Your task to perform on an android device: Do I have any events today? Image 0: 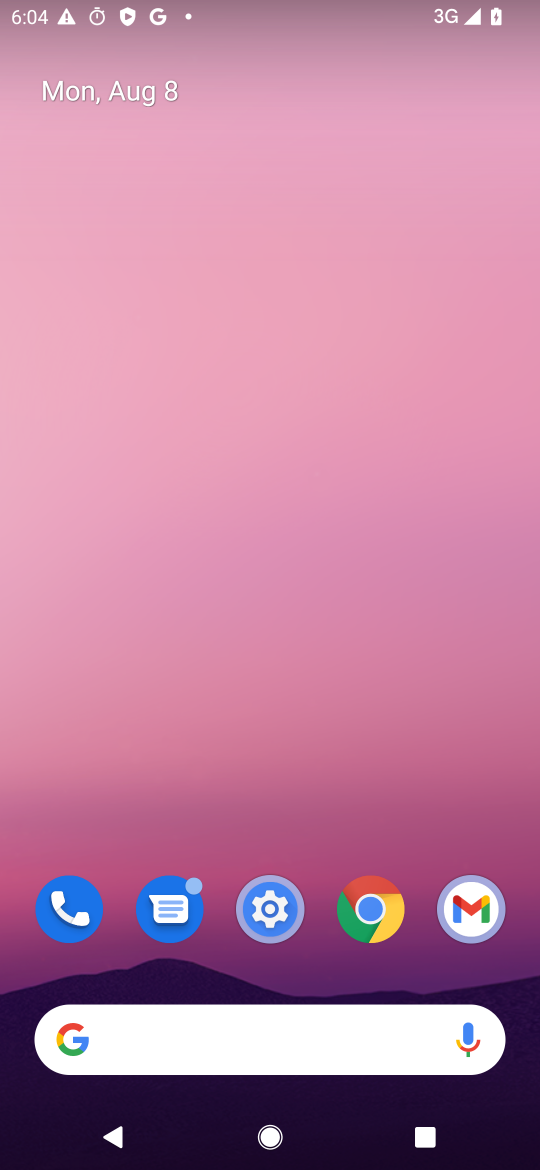
Step 0: click (188, 1049)
Your task to perform on an android device: Do I have any events today? Image 1: 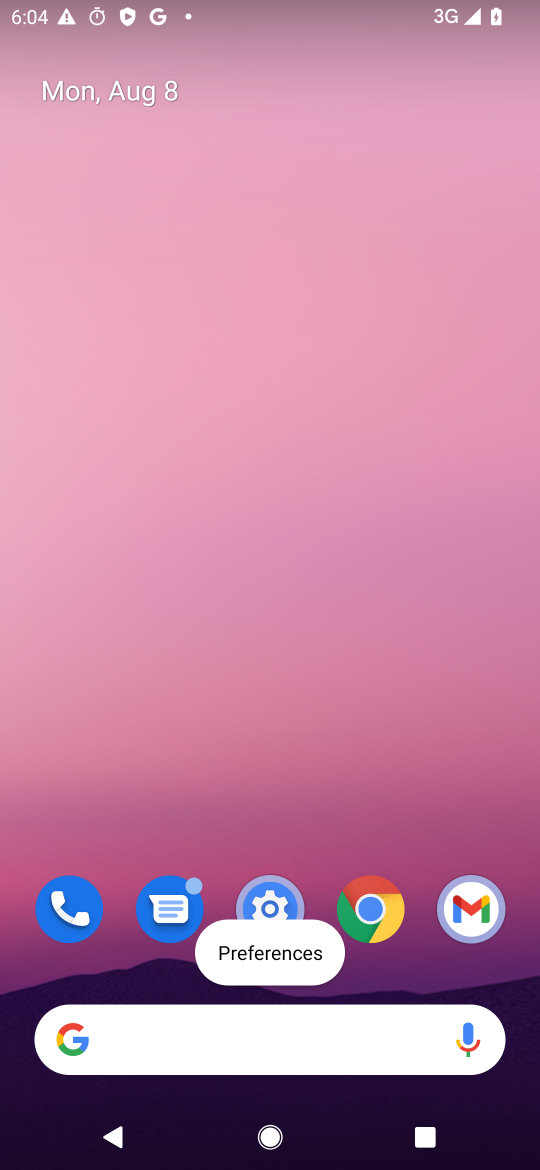
Step 1: click (166, 1027)
Your task to perform on an android device: Do I have any events today? Image 2: 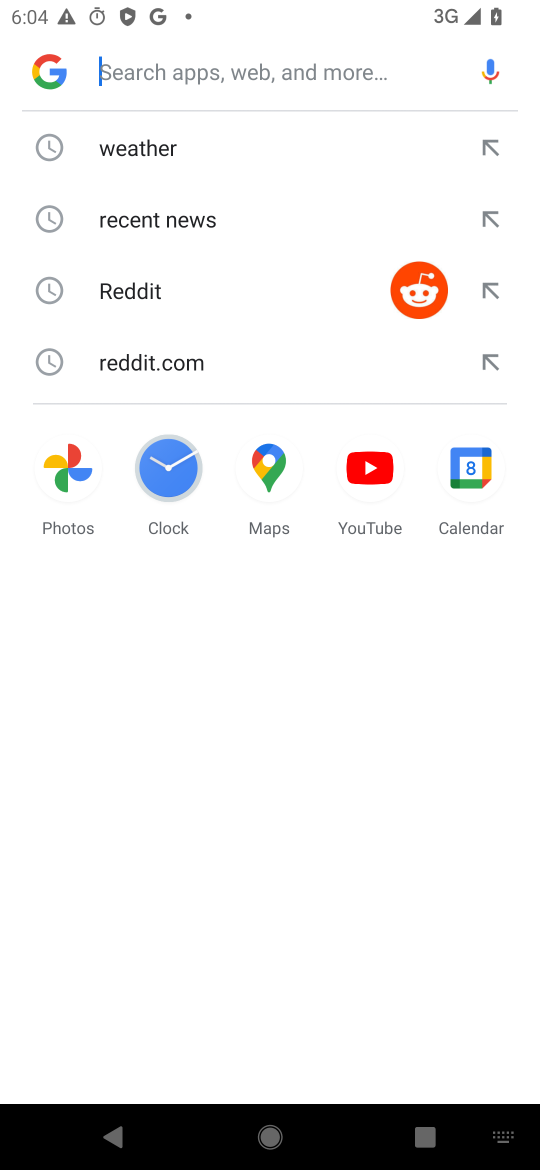
Step 2: press home button
Your task to perform on an android device: Do I have any events today? Image 3: 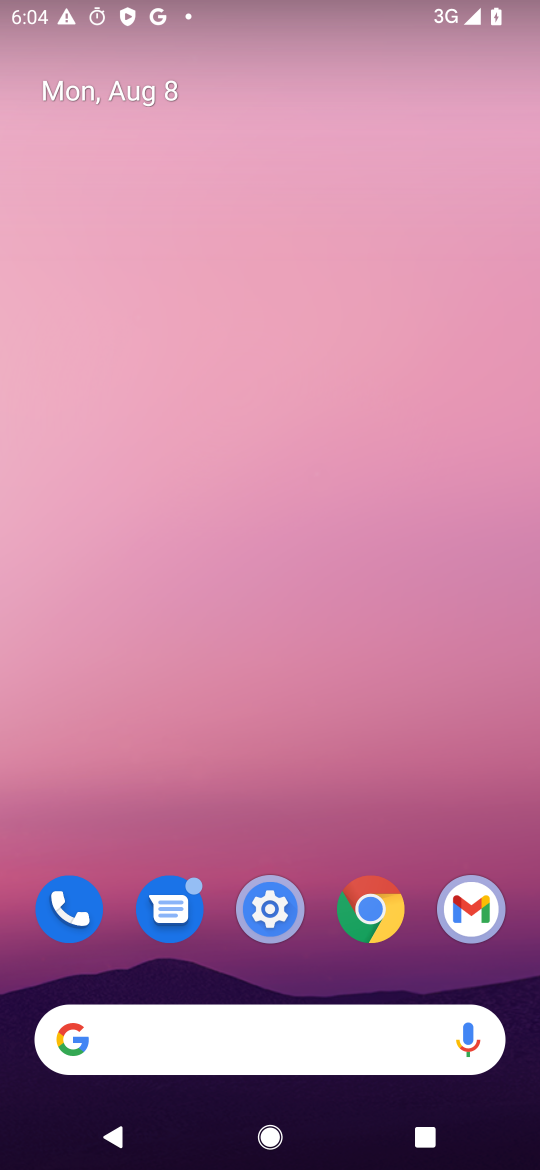
Step 3: drag from (334, 532) to (413, 94)
Your task to perform on an android device: Do I have any events today? Image 4: 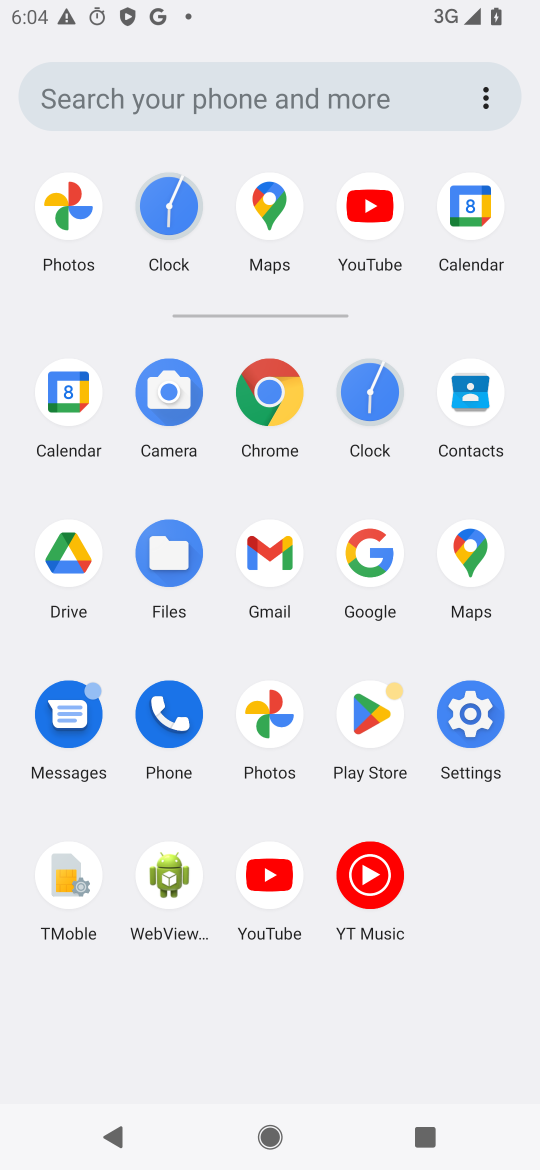
Step 4: click (79, 385)
Your task to perform on an android device: Do I have any events today? Image 5: 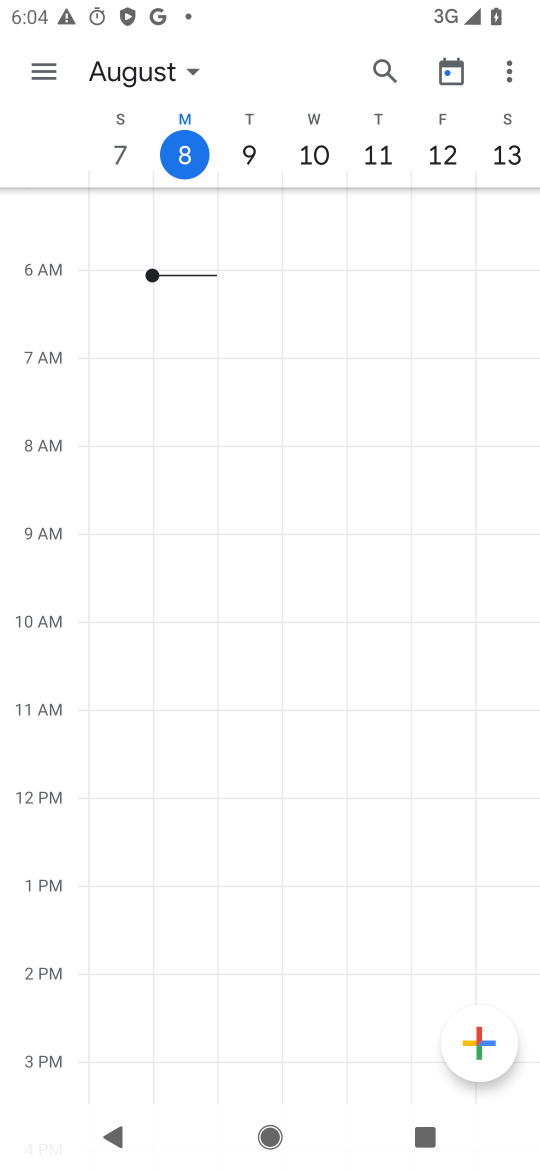
Step 5: click (159, 65)
Your task to perform on an android device: Do I have any events today? Image 6: 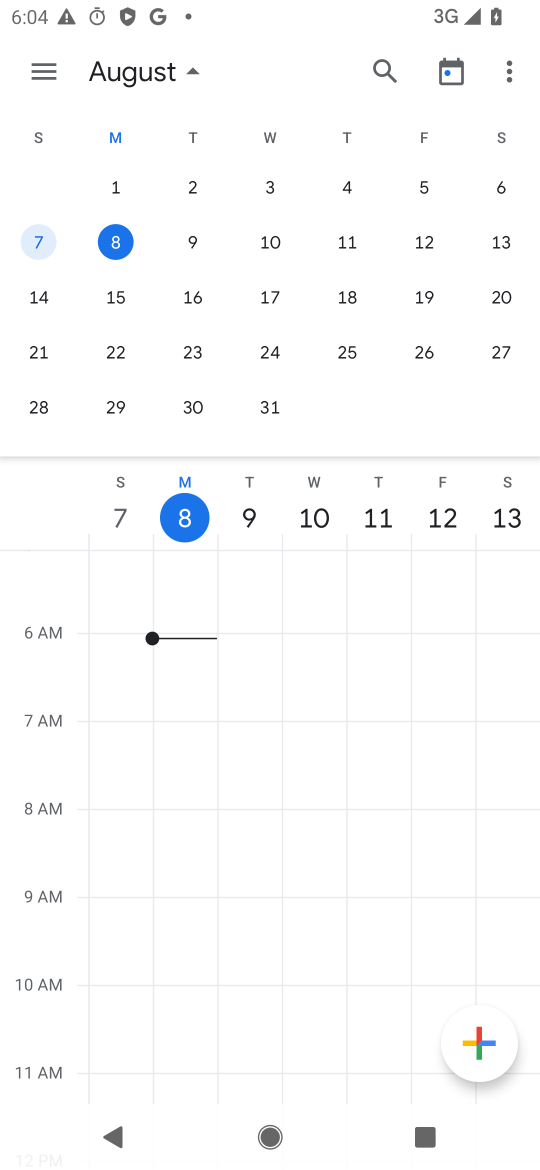
Step 6: click (32, 230)
Your task to perform on an android device: Do I have any events today? Image 7: 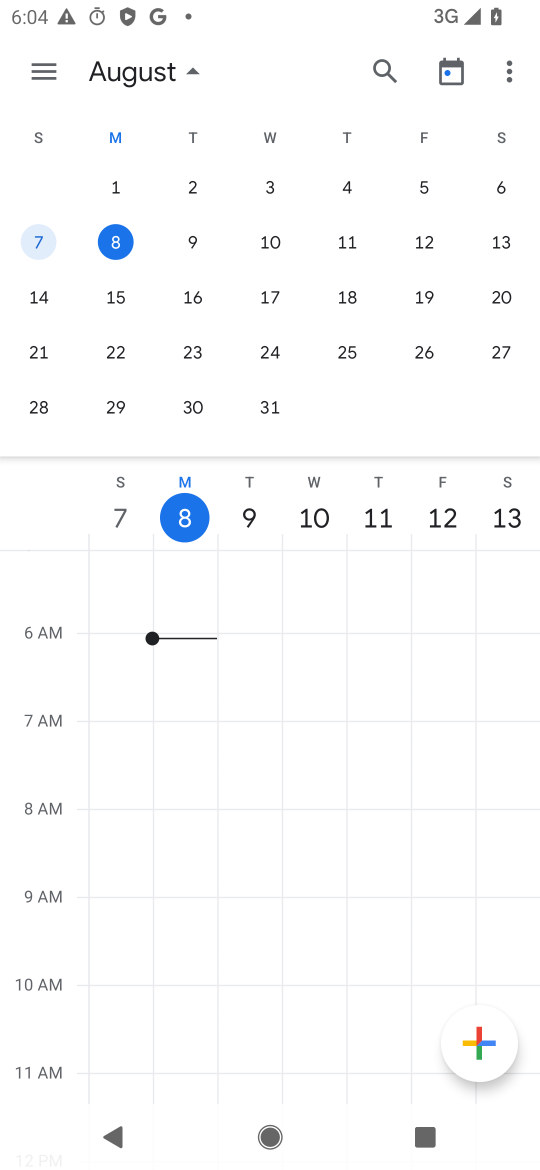
Step 7: click (43, 247)
Your task to perform on an android device: Do I have any events today? Image 8: 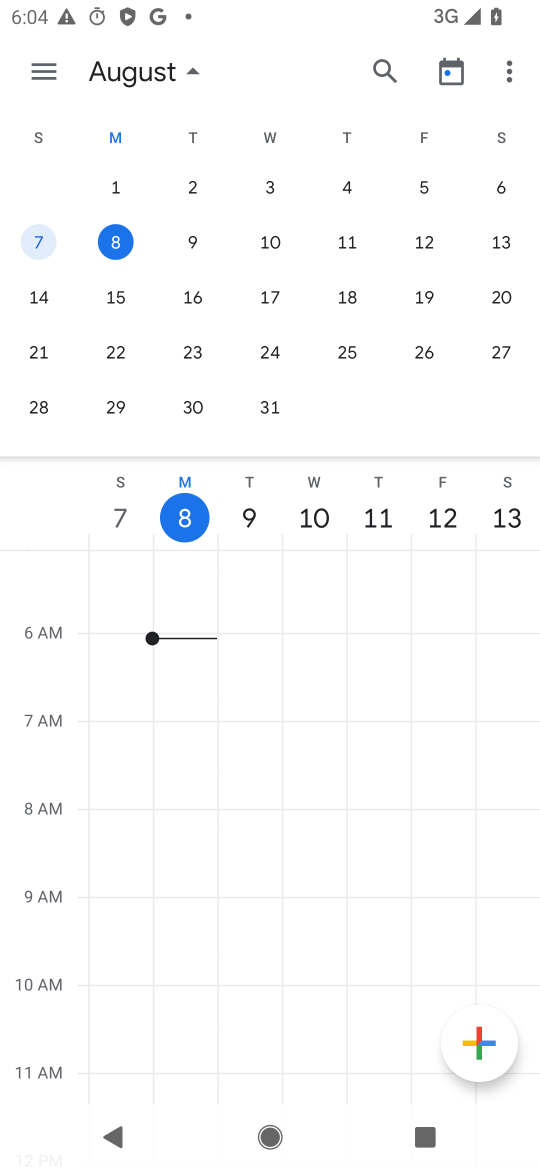
Step 8: click (49, 244)
Your task to perform on an android device: Do I have any events today? Image 9: 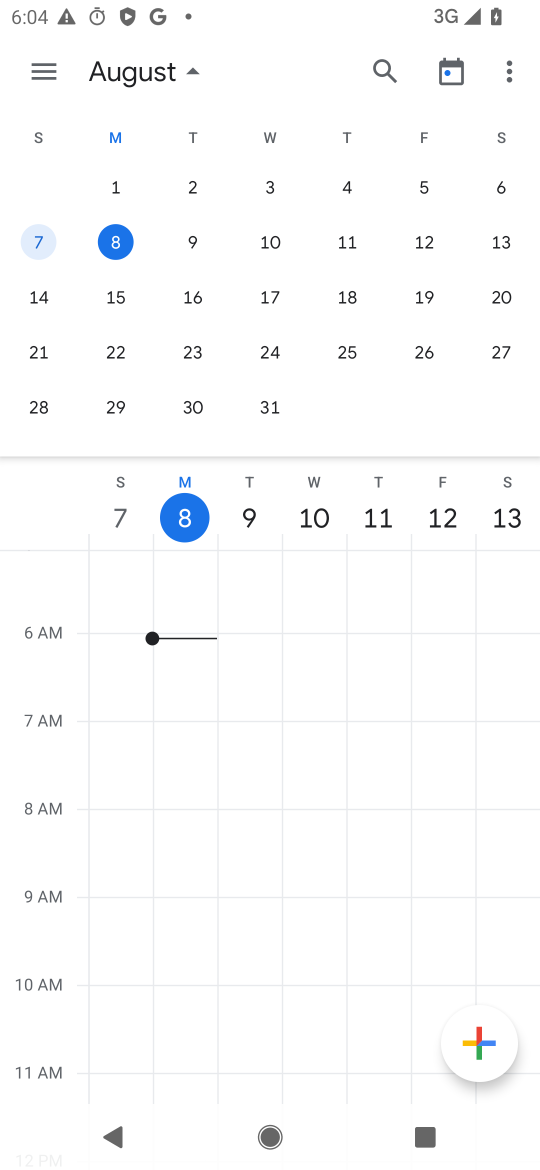
Step 9: click (55, 234)
Your task to perform on an android device: Do I have any events today? Image 10: 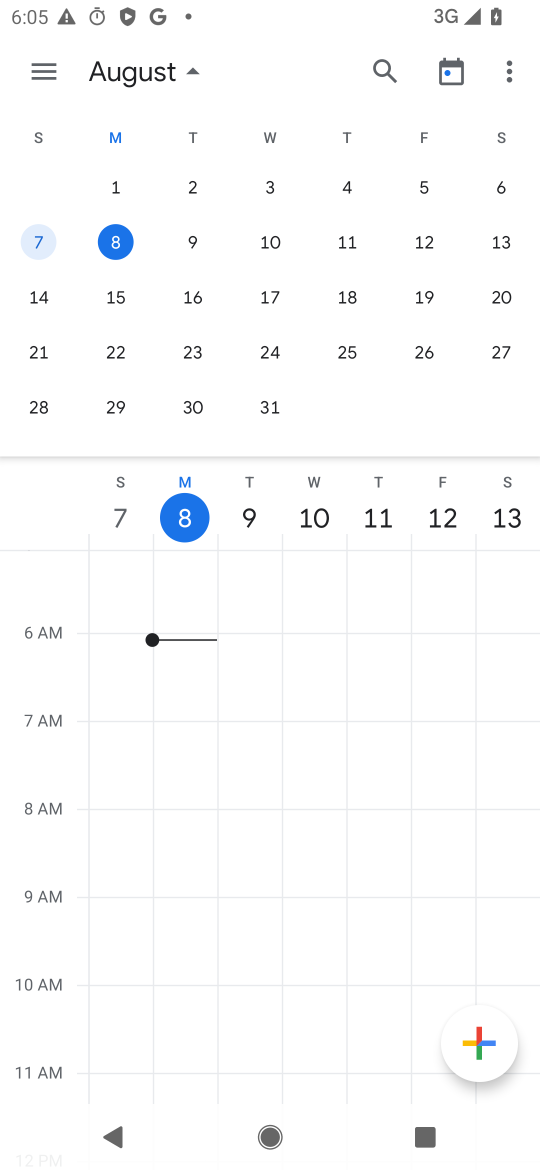
Step 10: click (66, 234)
Your task to perform on an android device: Do I have any events today? Image 11: 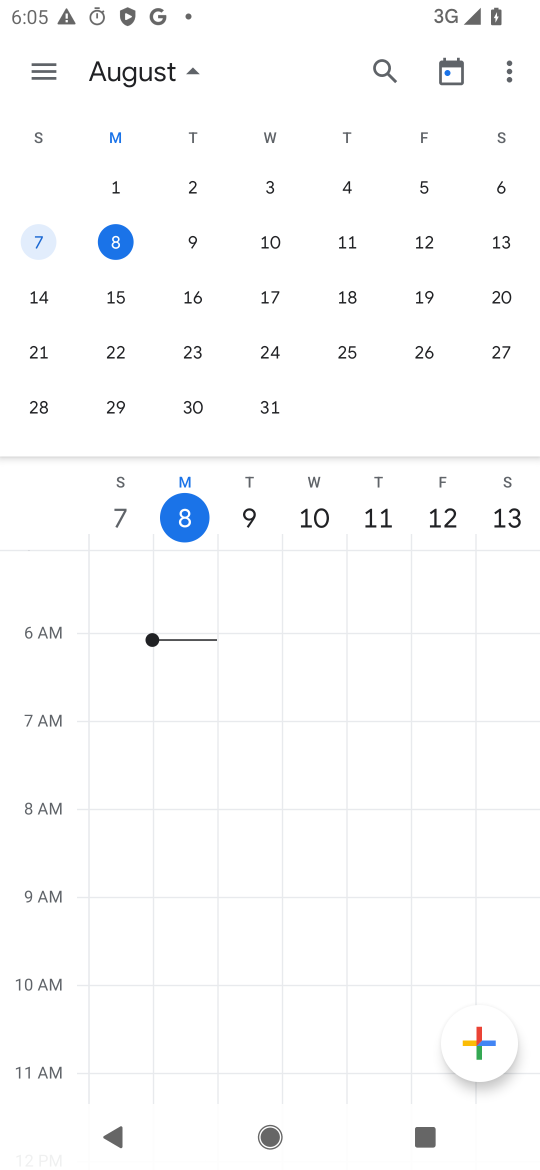
Step 11: click (42, 232)
Your task to perform on an android device: Do I have any events today? Image 12: 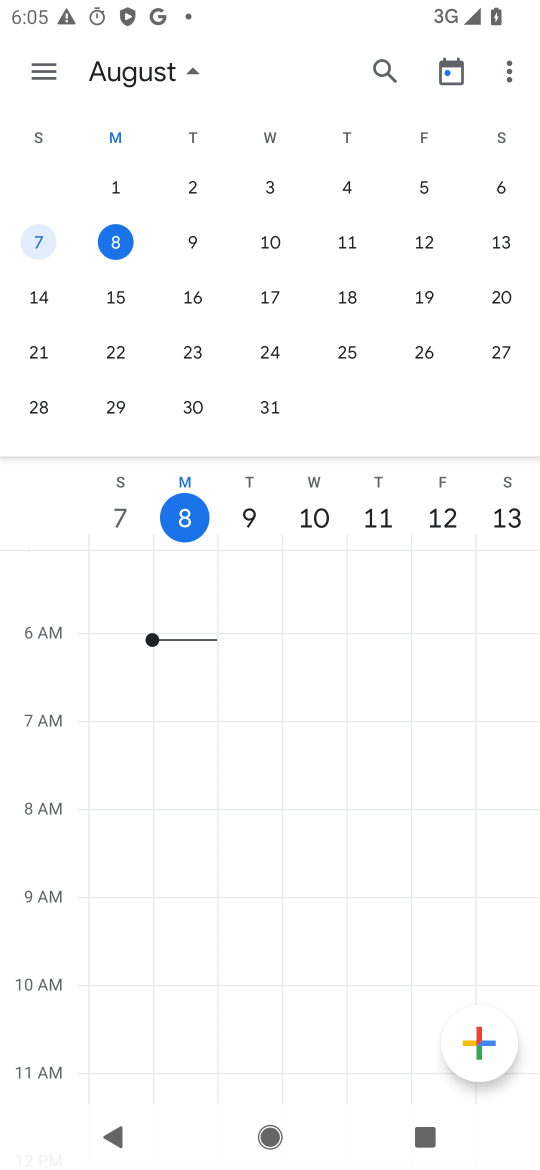
Step 12: click (500, 176)
Your task to perform on an android device: Do I have any events today? Image 13: 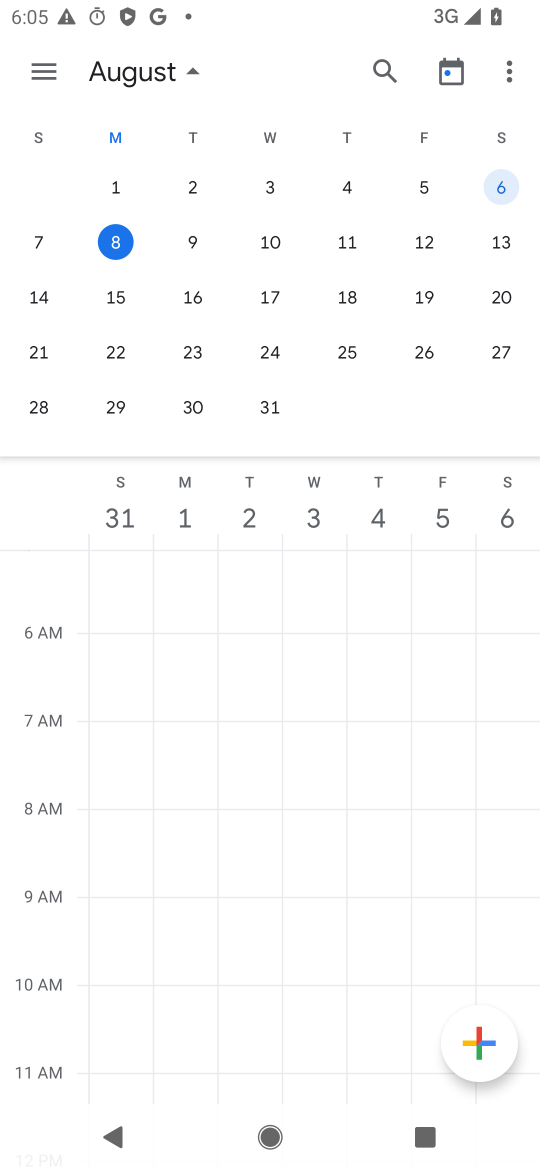
Step 13: click (51, 238)
Your task to perform on an android device: Do I have any events today? Image 14: 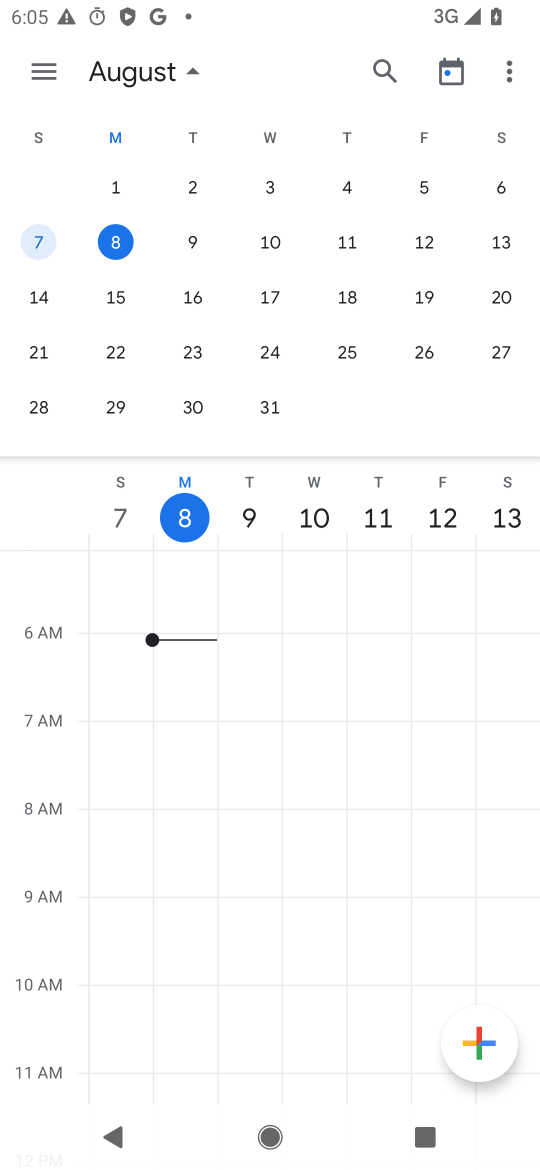
Step 14: click (59, 65)
Your task to perform on an android device: Do I have any events today? Image 15: 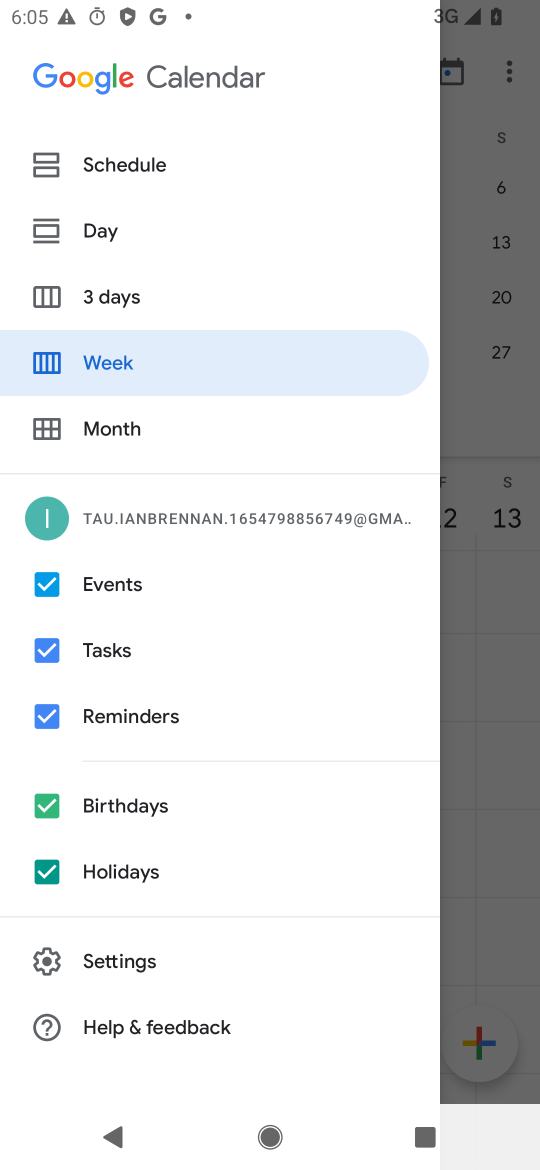
Step 15: click (125, 242)
Your task to perform on an android device: Do I have any events today? Image 16: 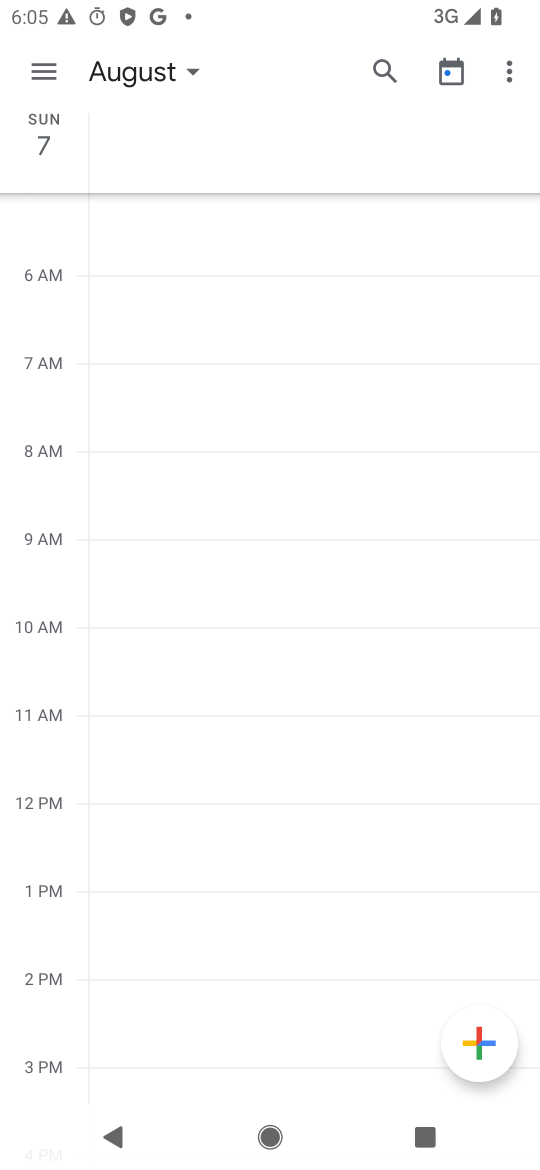
Step 16: click (54, 67)
Your task to perform on an android device: Do I have any events today? Image 17: 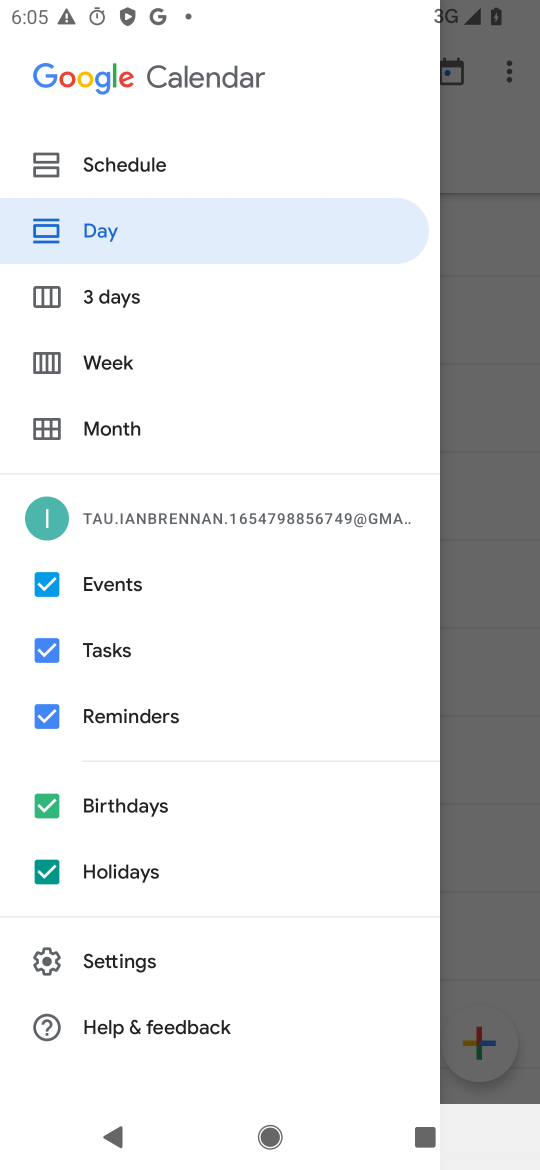
Step 17: click (124, 163)
Your task to perform on an android device: Do I have any events today? Image 18: 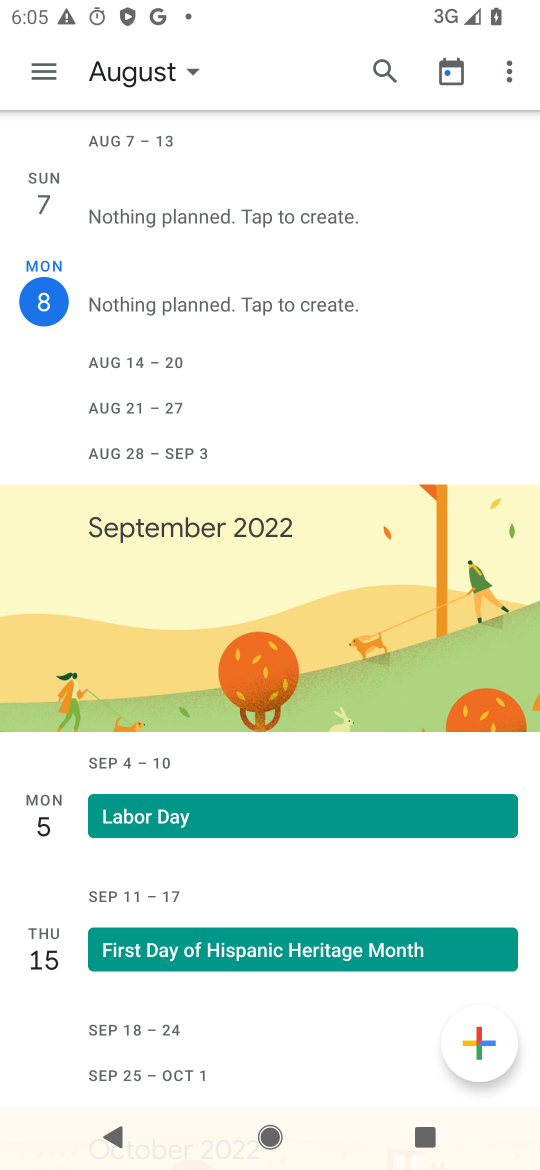
Step 18: task complete